Your task to perform on an android device: check google app version Image 0: 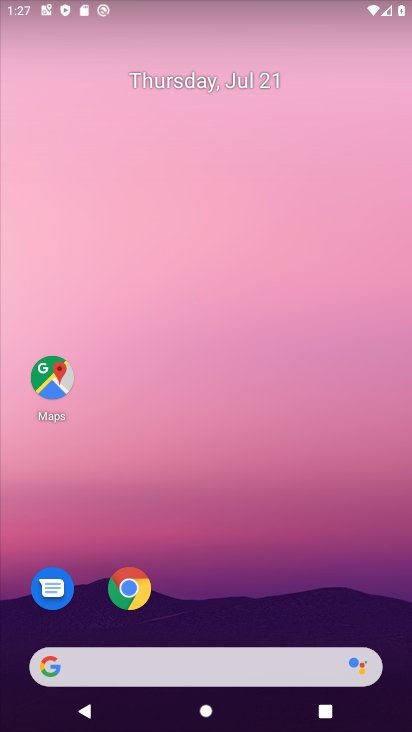
Step 0: drag from (253, 603) to (221, 147)
Your task to perform on an android device: check google app version Image 1: 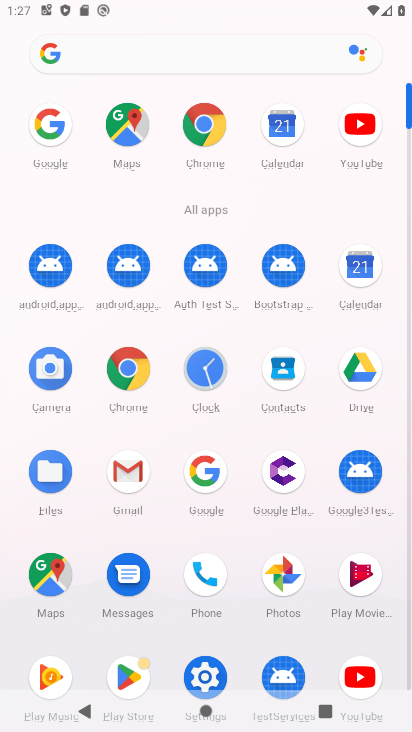
Step 1: click (213, 141)
Your task to perform on an android device: check google app version Image 2: 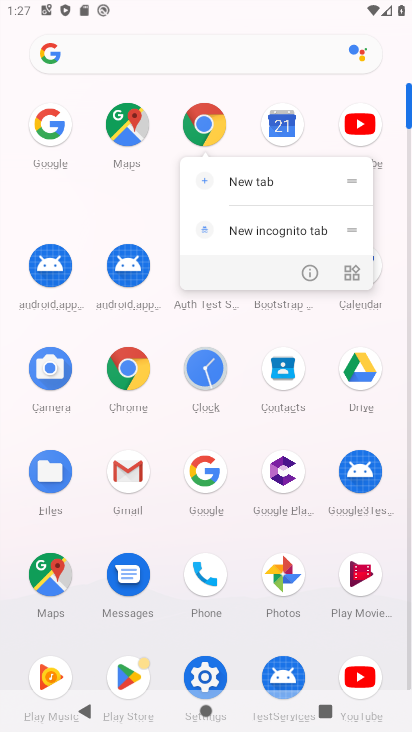
Step 2: click (311, 271)
Your task to perform on an android device: check google app version Image 3: 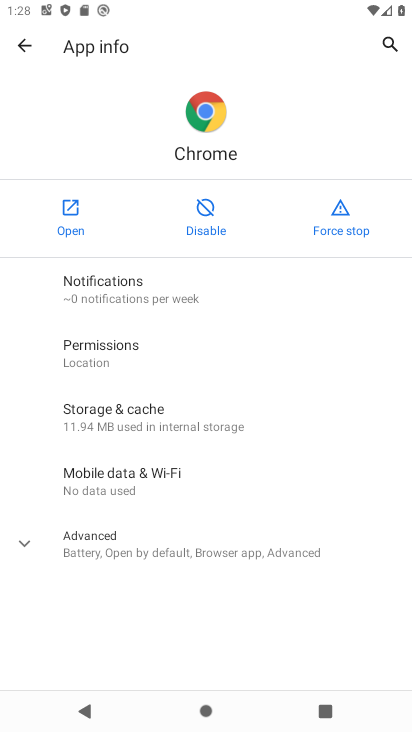
Step 3: click (135, 545)
Your task to perform on an android device: check google app version Image 4: 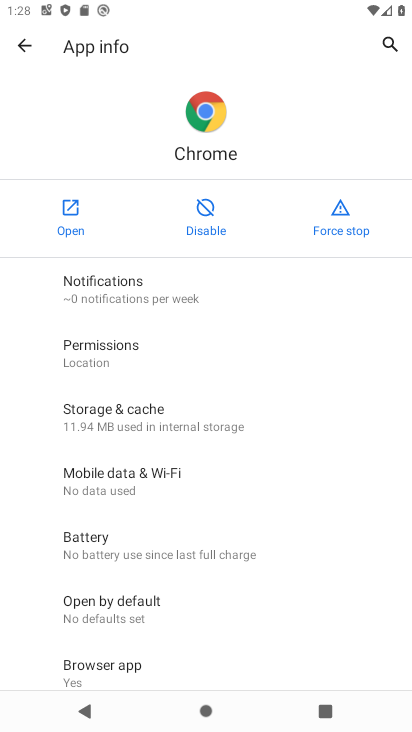
Step 4: task complete